Your task to perform on an android device: Open my contact list Image 0: 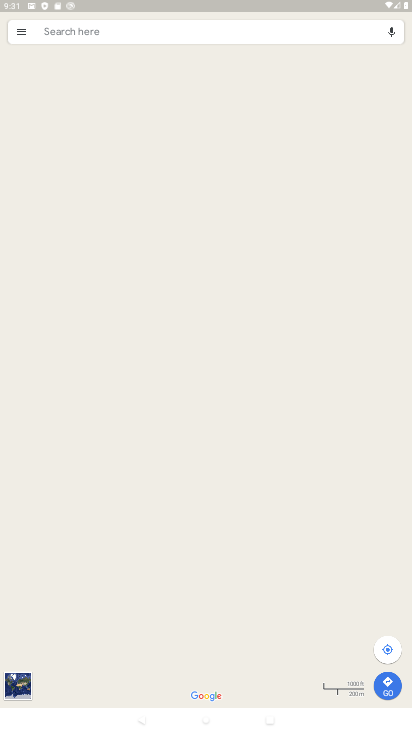
Step 0: press home button
Your task to perform on an android device: Open my contact list Image 1: 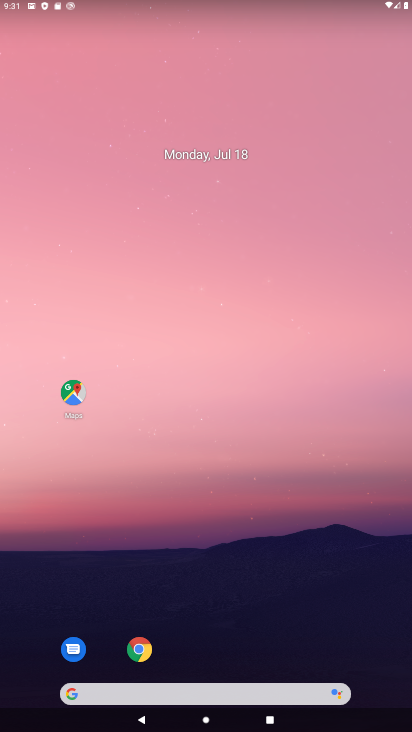
Step 1: drag from (163, 644) to (237, 186)
Your task to perform on an android device: Open my contact list Image 2: 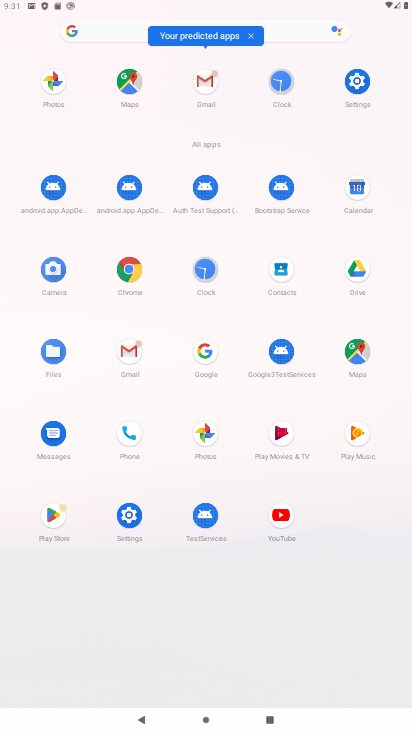
Step 2: click (283, 279)
Your task to perform on an android device: Open my contact list Image 3: 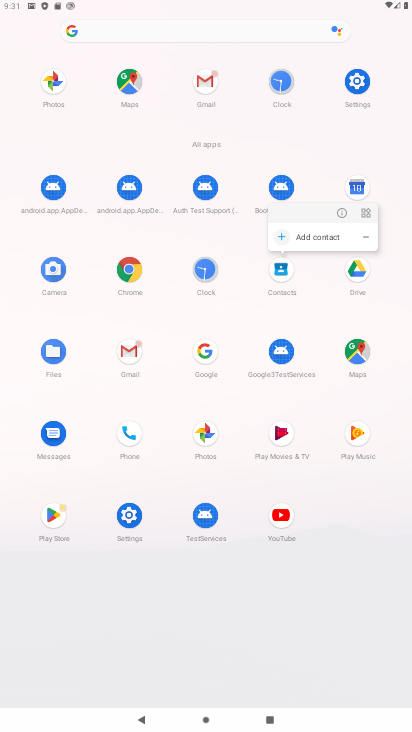
Step 3: click (283, 279)
Your task to perform on an android device: Open my contact list Image 4: 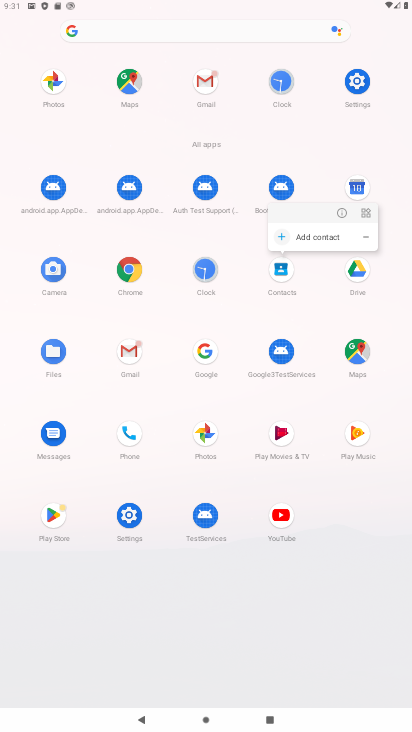
Step 4: click (281, 258)
Your task to perform on an android device: Open my contact list Image 5: 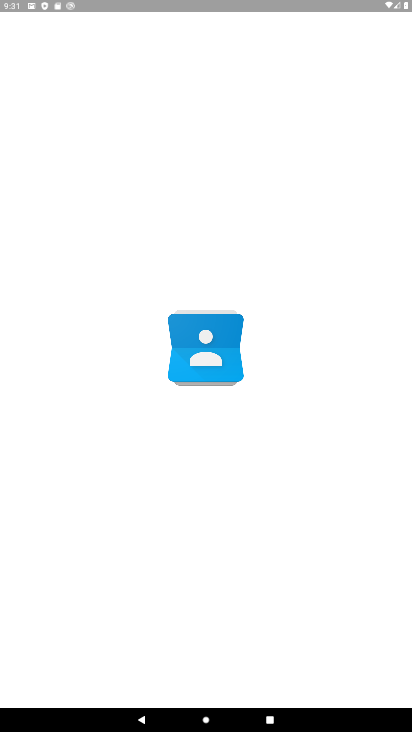
Step 5: click (278, 282)
Your task to perform on an android device: Open my contact list Image 6: 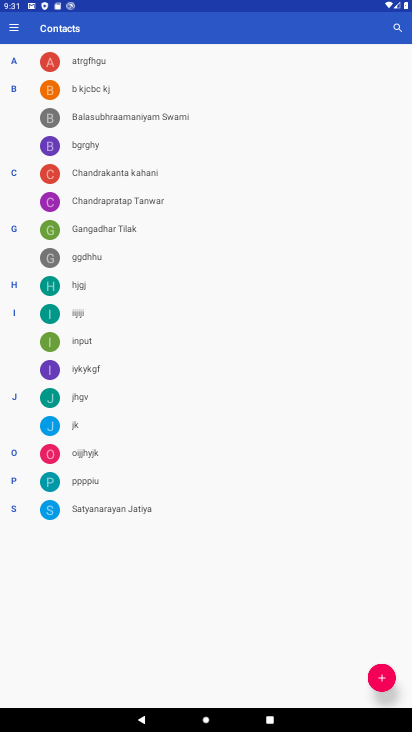
Step 6: task complete